Your task to perform on an android device: star an email in the gmail app Image 0: 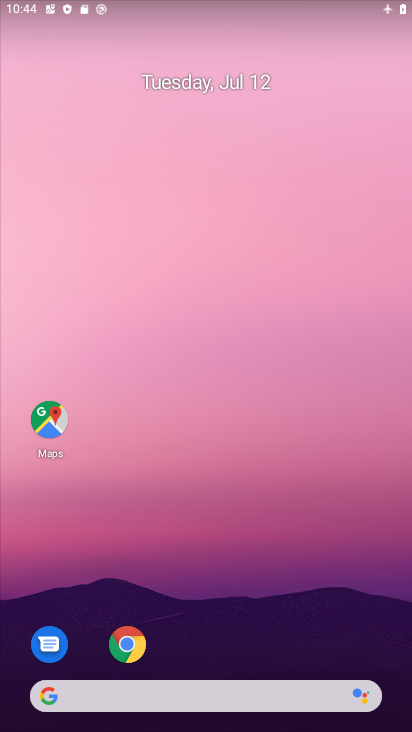
Step 0: drag from (222, 565) to (331, 46)
Your task to perform on an android device: star an email in the gmail app Image 1: 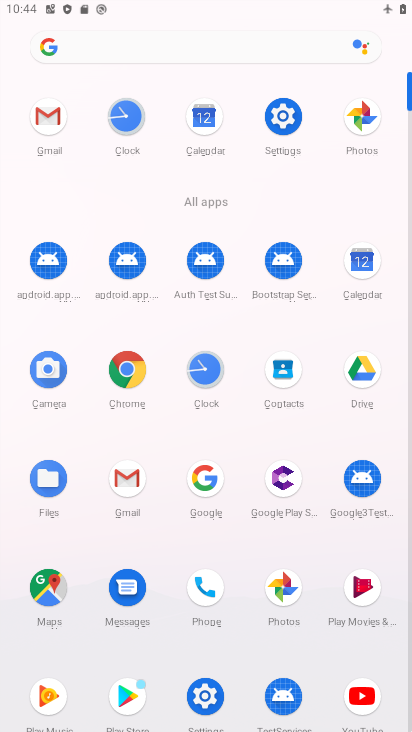
Step 1: click (41, 120)
Your task to perform on an android device: star an email in the gmail app Image 2: 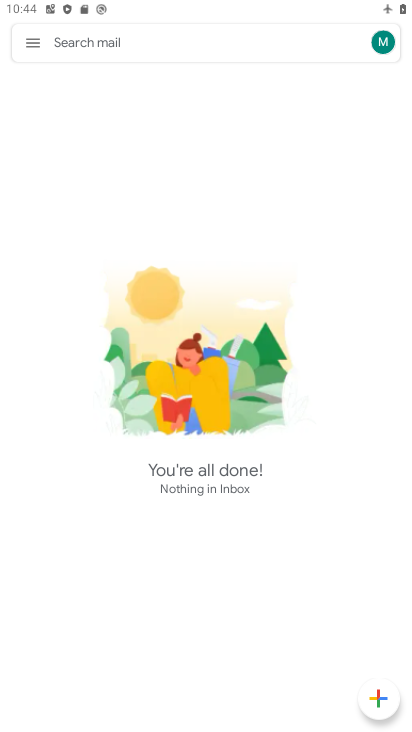
Step 2: task complete